Your task to perform on an android device: turn on airplane mode Image 0: 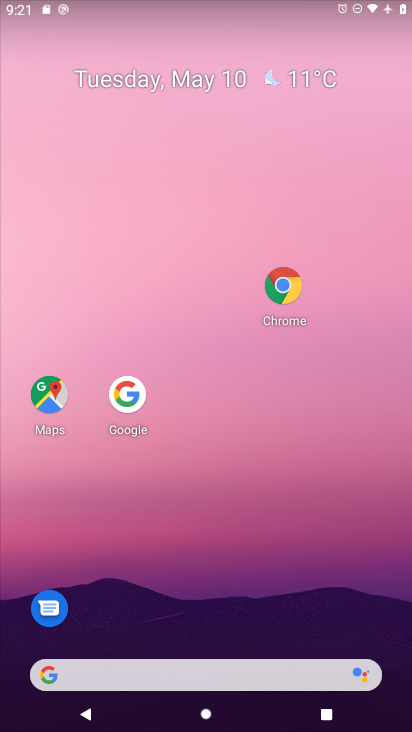
Step 0: drag from (135, 642) to (269, 161)
Your task to perform on an android device: turn on airplane mode Image 1: 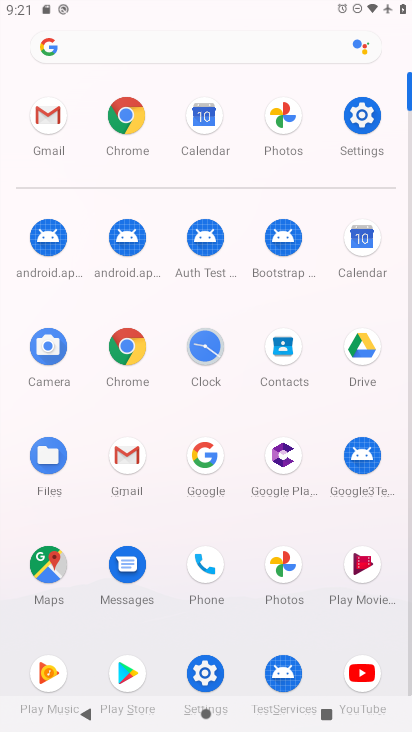
Step 1: click (339, 125)
Your task to perform on an android device: turn on airplane mode Image 2: 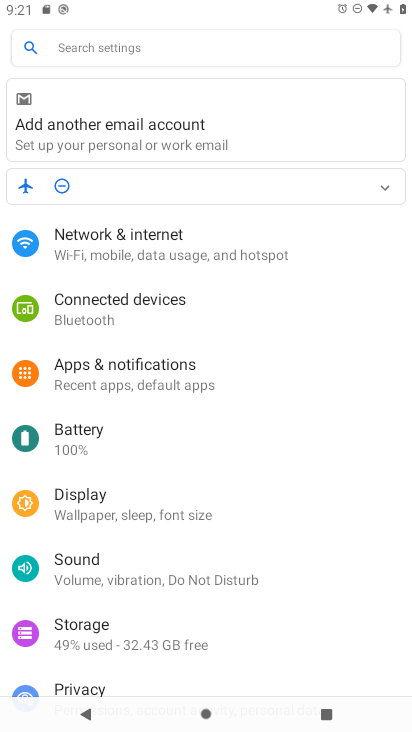
Step 2: click (219, 250)
Your task to perform on an android device: turn on airplane mode Image 3: 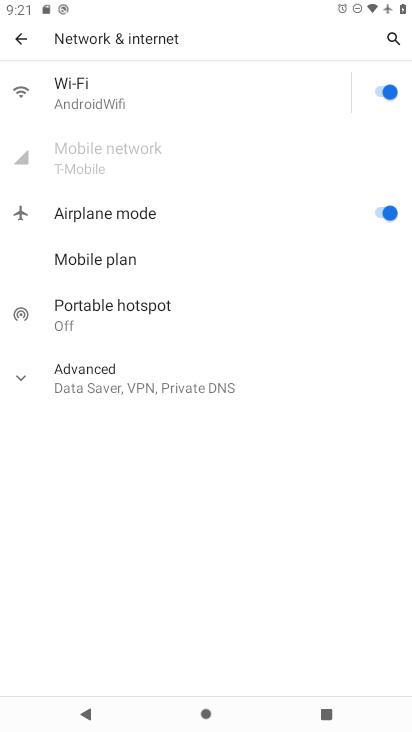
Step 3: task complete